Your task to perform on an android device: check out phone information Image 0: 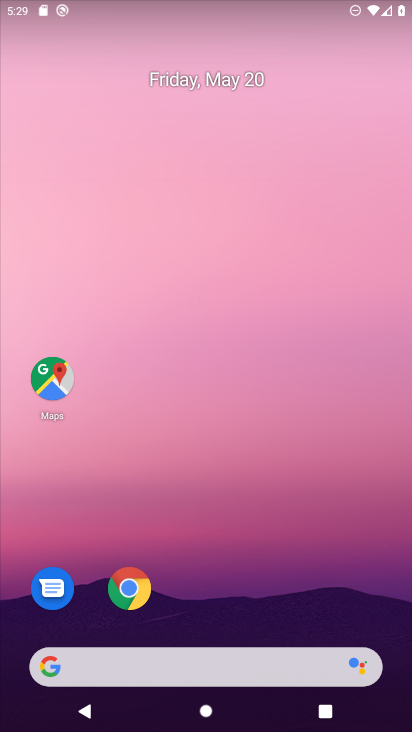
Step 0: click (237, 606)
Your task to perform on an android device: check out phone information Image 1: 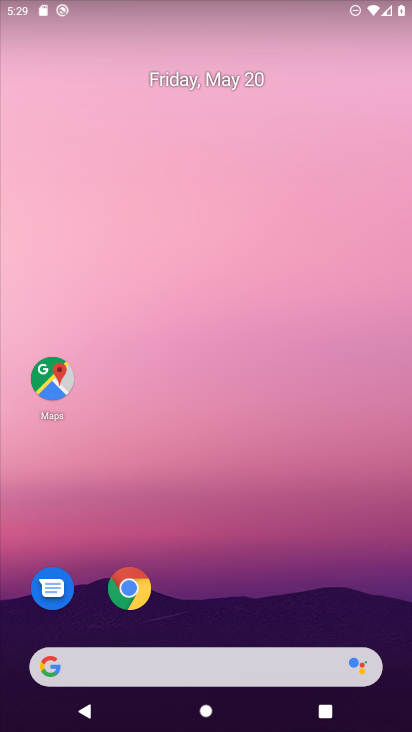
Step 1: drag from (250, 620) to (244, 29)
Your task to perform on an android device: check out phone information Image 2: 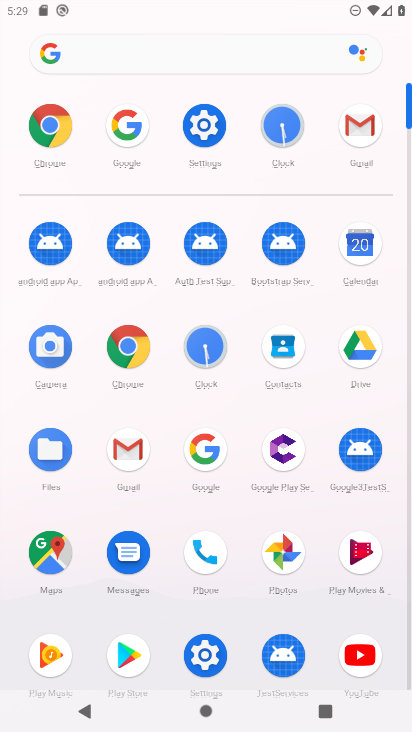
Step 2: click (190, 129)
Your task to perform on an android device: check out phone information Image 3: 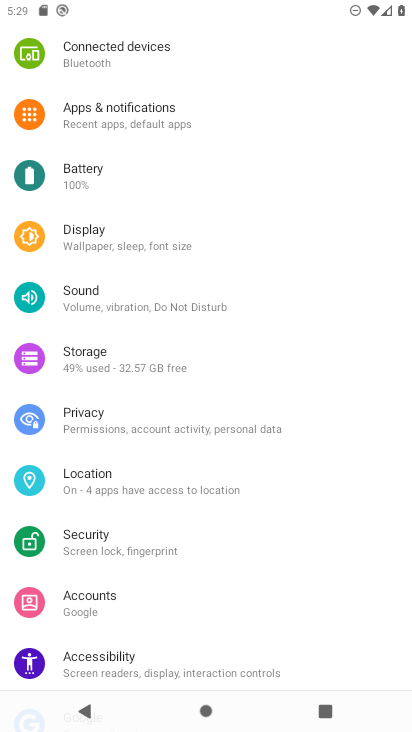
Step 3: drag from (137, 652) to (151, 257)
Your task to perform on an android device: check out phone information Image 4: 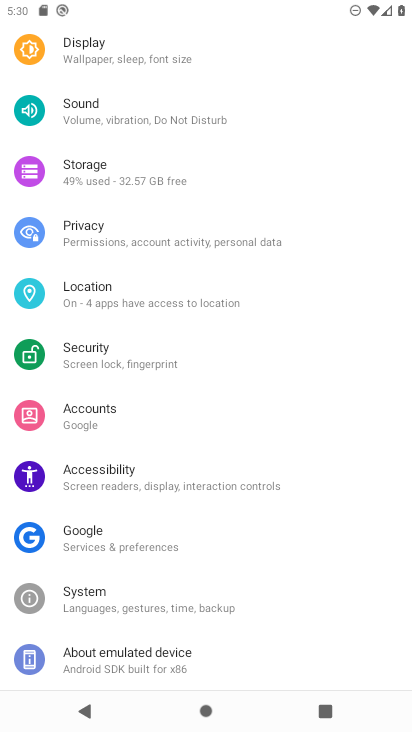
Step 4: drag from (175, 230) to (155, 529)
Your task to perform on an android device: check out phone information Image 5: 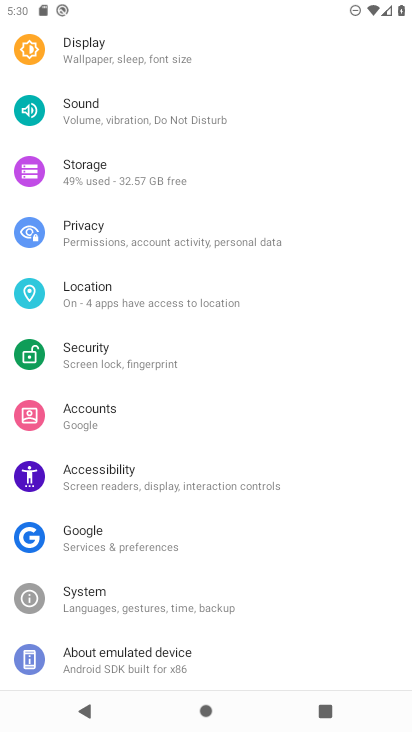
Step 5: click (123, 665)
Your task to perform on an android device: check out phone information Image 6: 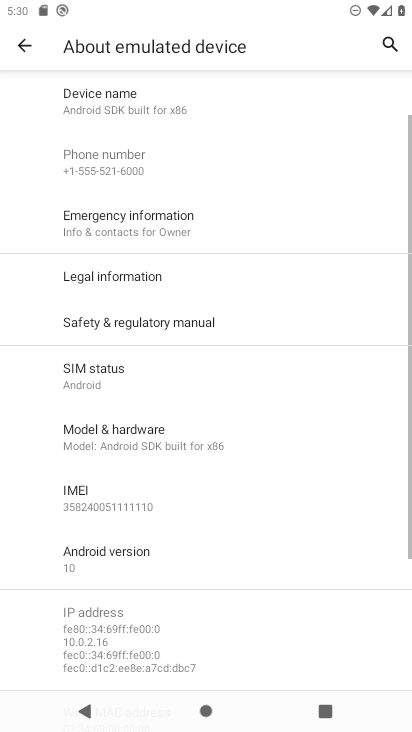
Step 6: task complete